Your task to perform on an android device: What's the weather going to be tomorrow? Image 0: 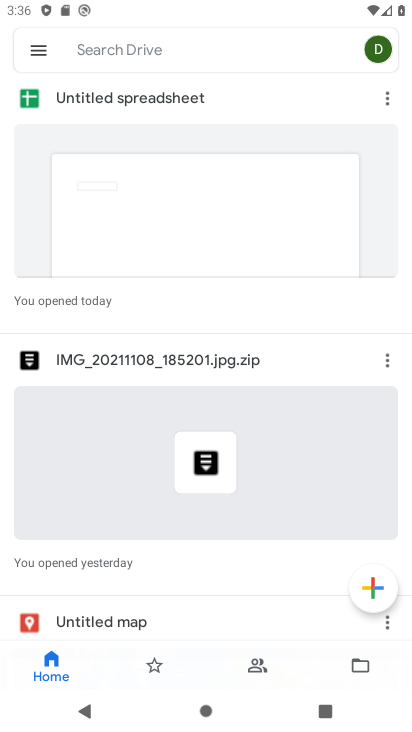
Step 0: press home button
Your task to perform on an android device: What's the weather going to be tomorrow? Image 1: 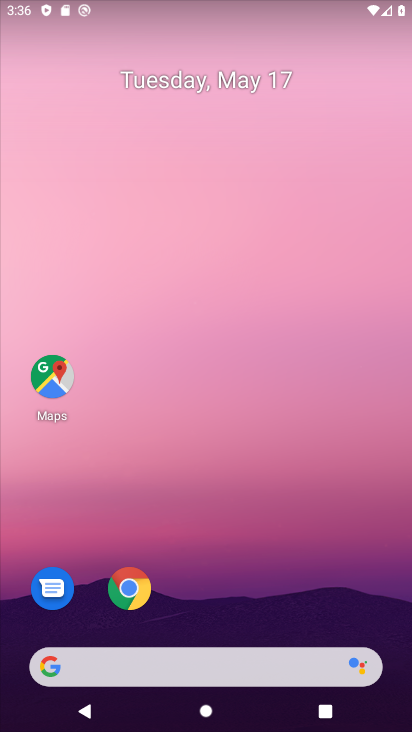
Step 1: drag from (242, 591) to (224, 136)
Your task to perform on an android device: What's the weather going to be tomorrow? Image 2: 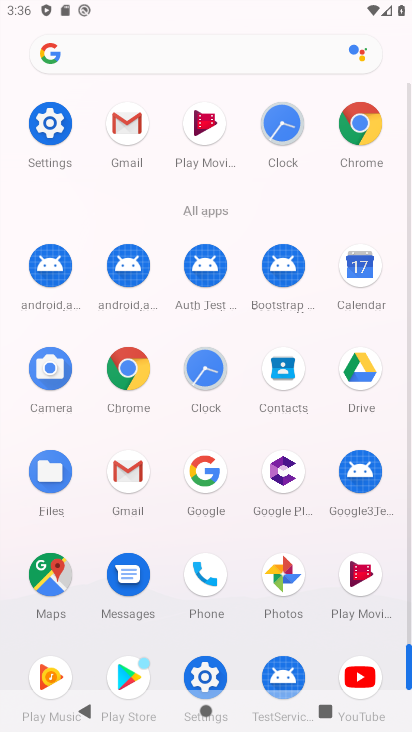
Step 2: click (204, 471)
Your task to perform on an android device: What's the weather going to be tomorrow? Image 3: 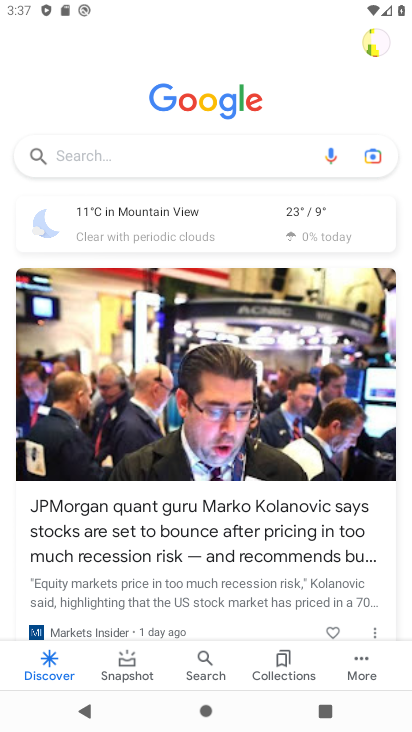
Step 3: click (140, 217)
Your task to perform on an android device: What's the weather going to be tomorrow? Image 4: 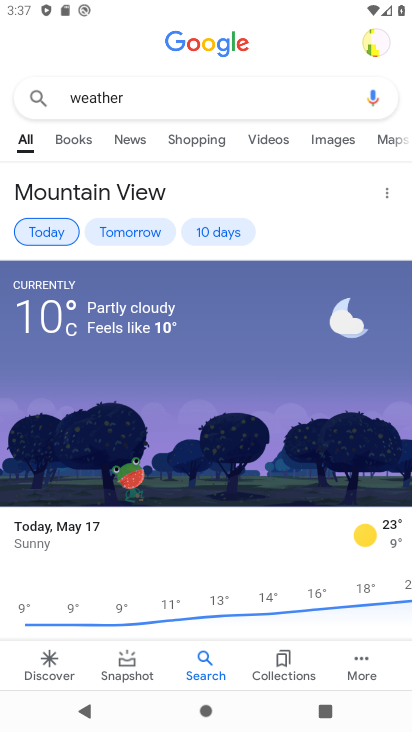
Step 4: click (125, 229)
Your task to perform on an android device: What's the weather going to be tomorrow? Image 5: 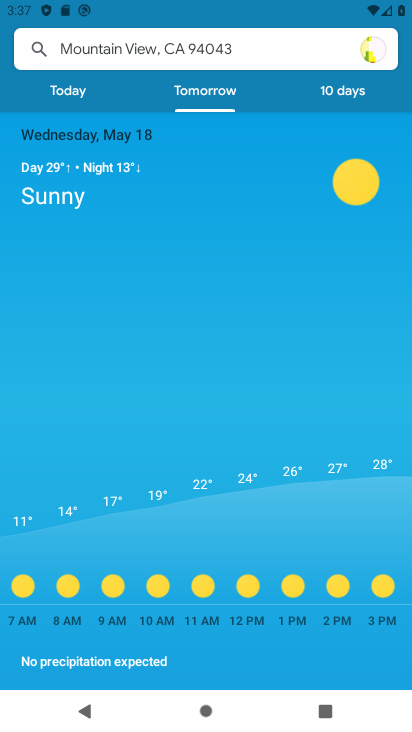
Step 5: task complete